Your task to perform on an android device: Open the web browser Image 0: 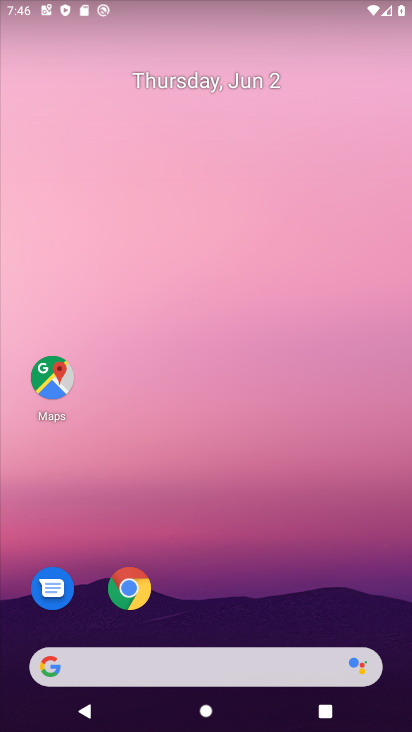
Step 0: drag from (210, 619) to (208, 323)
Your task to perform on an android device: Open the web browser Image 1: 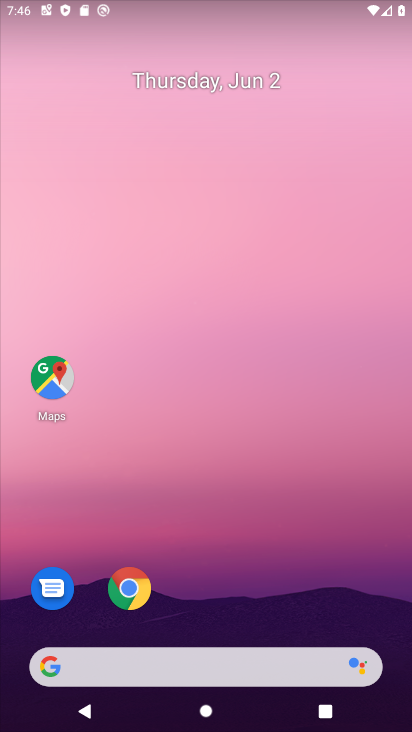
Step 1: drag from (220, 535) to (225, 384)
Your task to perform on an android device: Open the web browser Image 2: 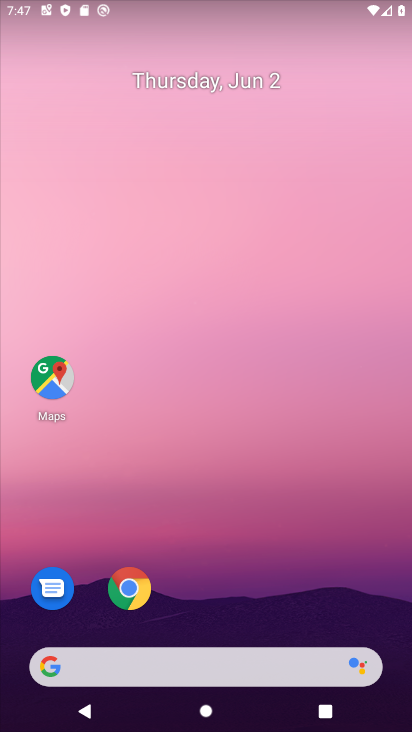
Step 2: click (142, 585)
Your task to perform on an android device: Open the web browser Image 3: 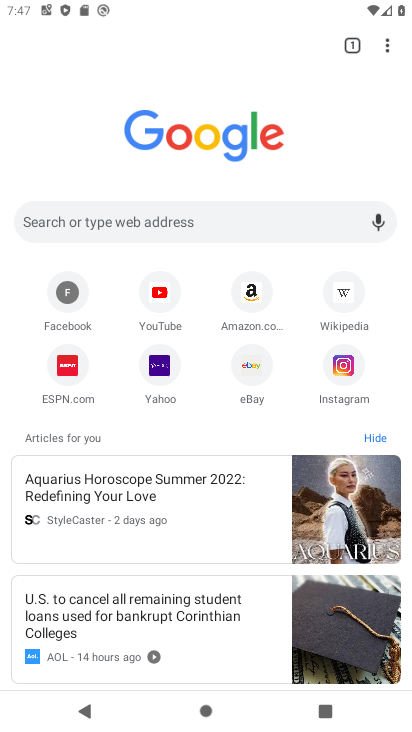
Step 3: task complete